Your task to perform on an android device: Open settings on Google Maps Image 0: 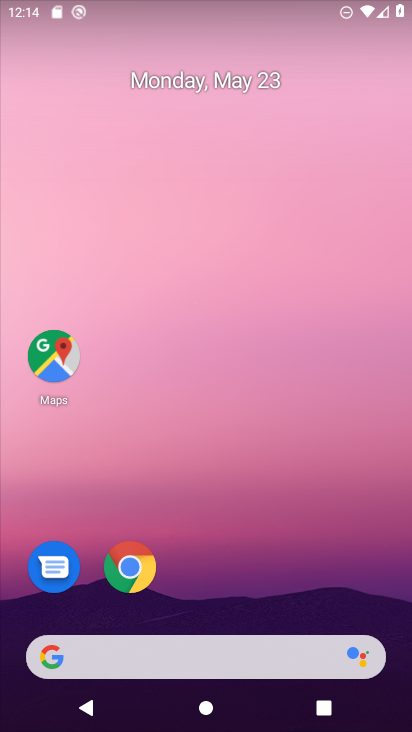
Step 0: click (50, 369)
Your task to perform on an android device: Open settings on Google Maps Image 1: 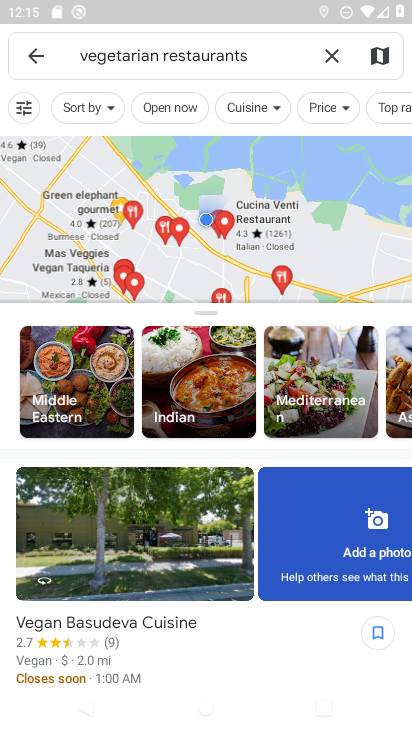
Step 1: click (27, 58)
Your task to perform on an android device: Open settings on Google Maps Image 2: 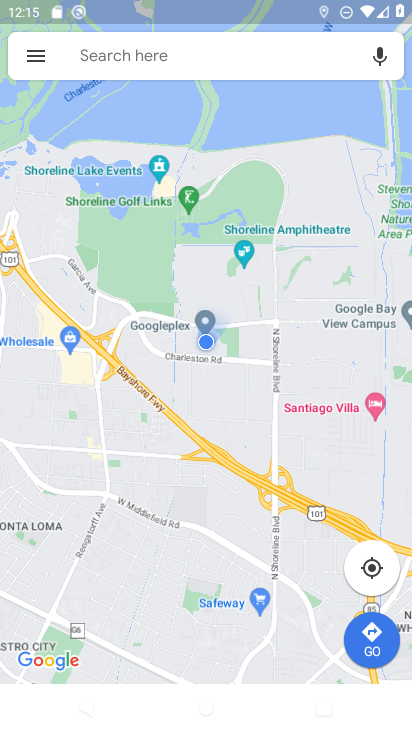
Step 2: click (39, 59)
Your task to perform on an android device: Open settings on Google Maps Image 3: 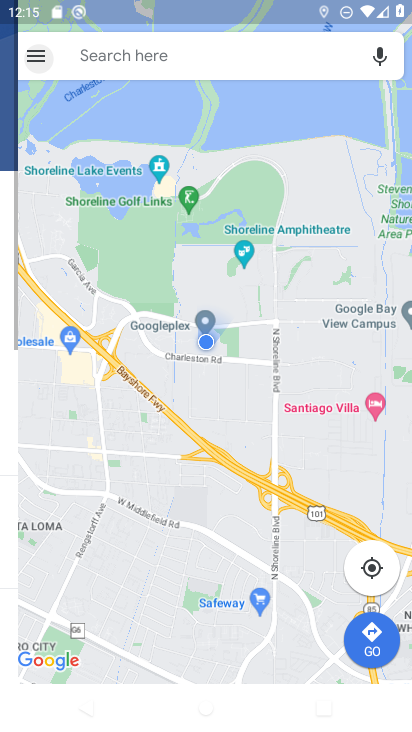
Step 3: click (40, 65)
Your task to perform on an android device: Open settings on Google Maps Image 4: 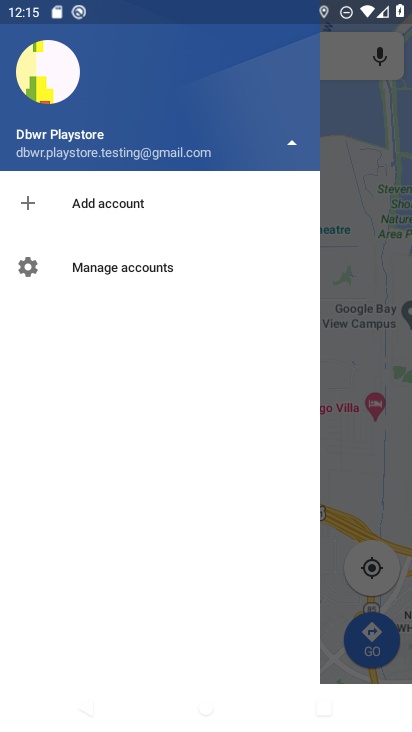
Step 4: click (139, 145)
Your task to perform on an android device: Open settings on Google Maps Image 5: 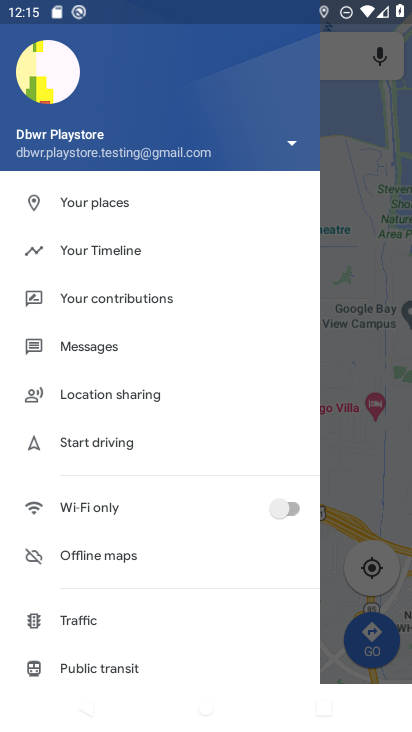
Step 5: drag from (69, 666) to (125, 247)
Your task to perform on an android device: Open settings on Google Maps Image 6: 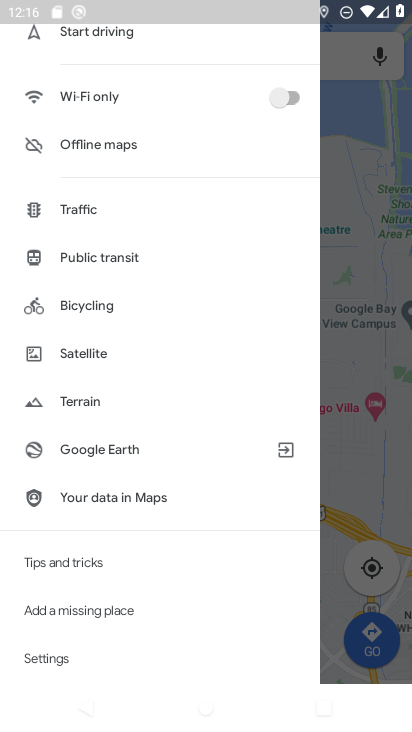
Step 6: click (80, 659)
Your task to perform on an android device: Open settings on Google Maps Image 7: 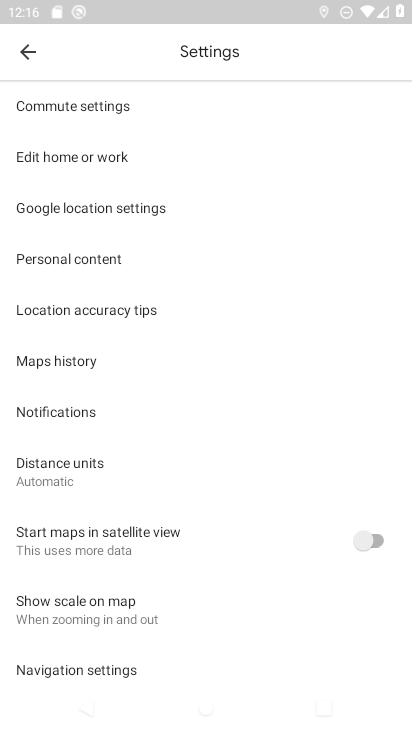
Step 7: task complete